Your task to perform on an android device: Turn on the flashlight Image 0: 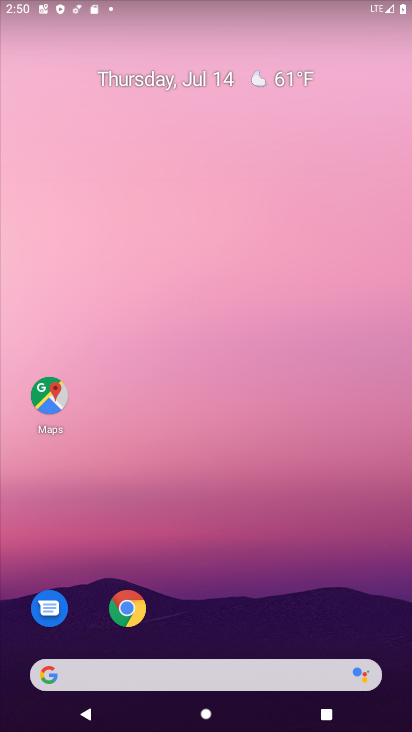
Step 0: drag from (176, 5) to (174, 515)
Your task to perform on an android device: Turn on the flashlight Image 1: 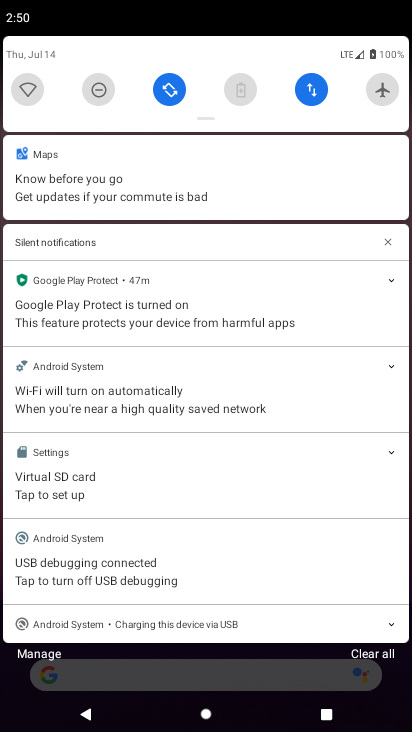
Step 1: drag from (225, 70) to (234, 453)
Your task to perform on an android device: Turn on the flashlight Image 2: 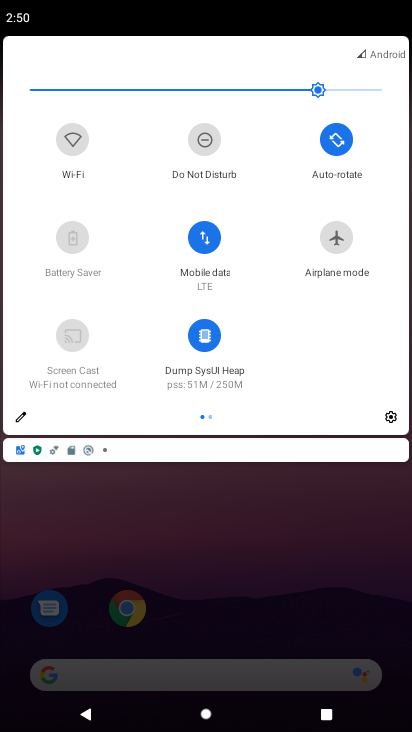
Step 2: drag from (346, 317) to (0, 371)
Your task to perform on an android device: Turn on the flashlight Image 3: 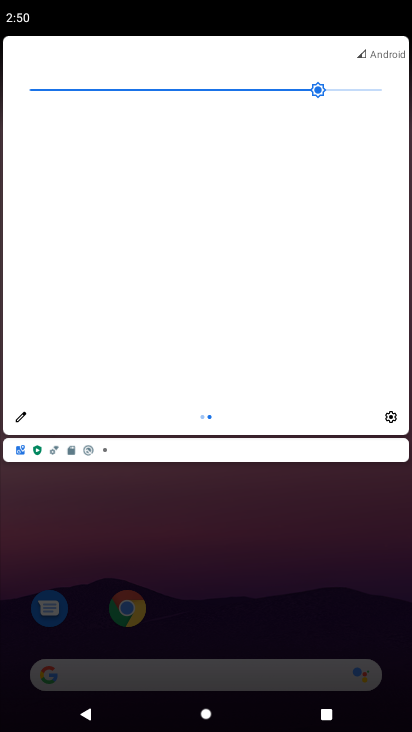
Step 3: click (11, 423)
Your task to perform on an android device: Turn on the flashlight Image 4: 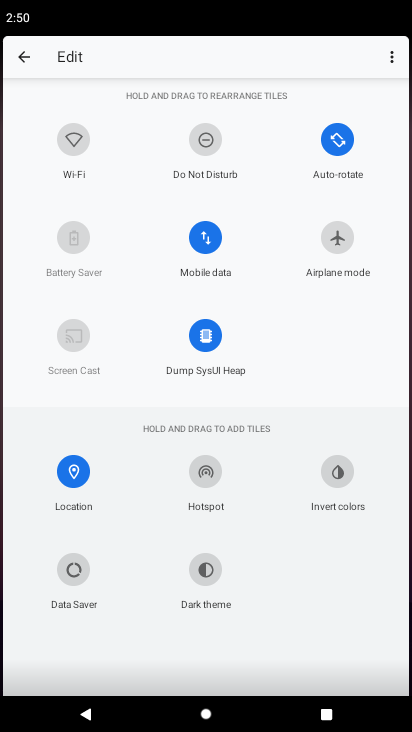
Step 4: task complete